Your task to perform on an android device: see sites visited before in the chrome app Image 0: 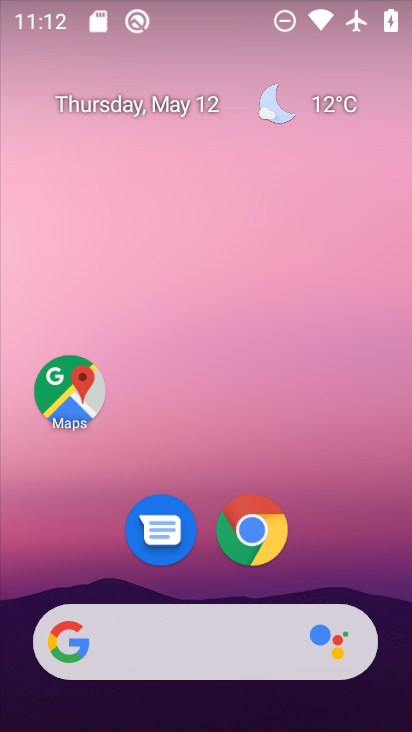
Step 0: click (249, 541)
Your task to perform on an android device: see sites visited before in the chrome app Image 1: 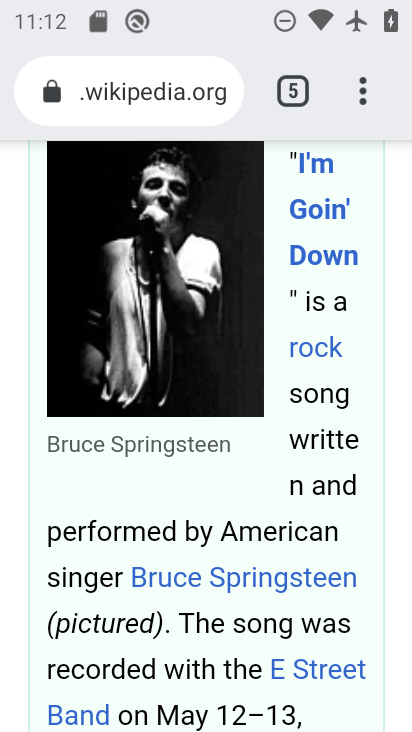
Step 1: task complete